Your task to perform on an android device: Go to wifi settings Image 0: 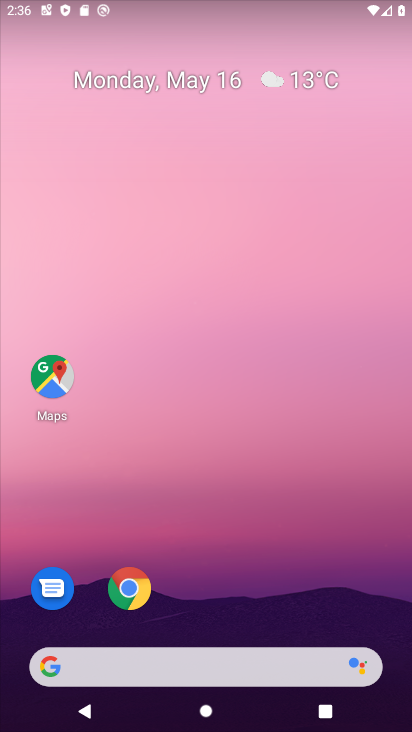
Step 0: drag from (195, 558) to (174, 10)
Your task to perform on an android device: Go to wifi settings Image 1: 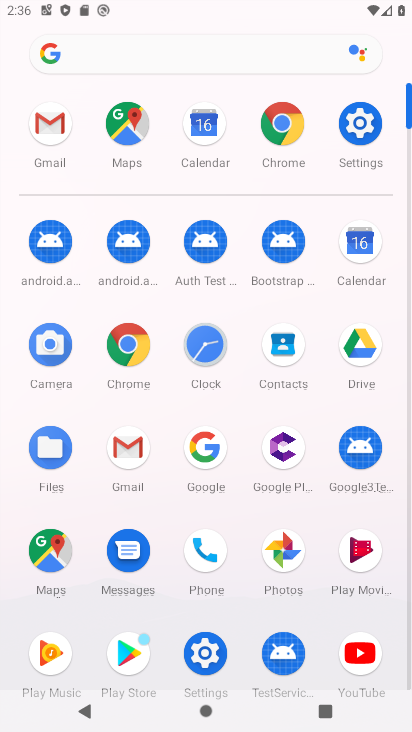
Step 1: click (367, 137)
Your task to perform on an android device: Go to wifi settings Image 2: 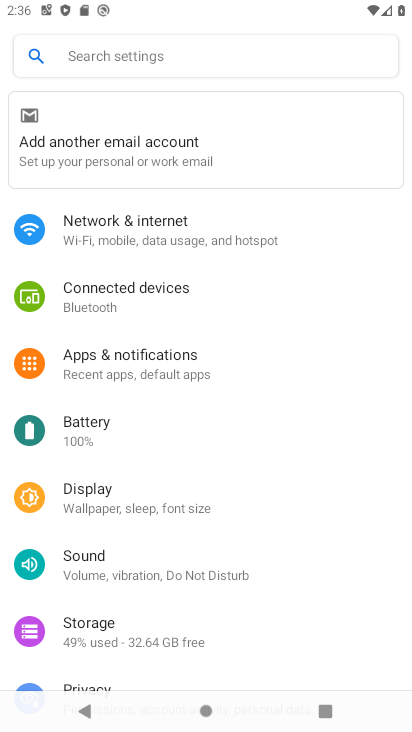
Step 2: click (121, 239)
Your task to perform on an android device: Go to wifi settings Image 3: 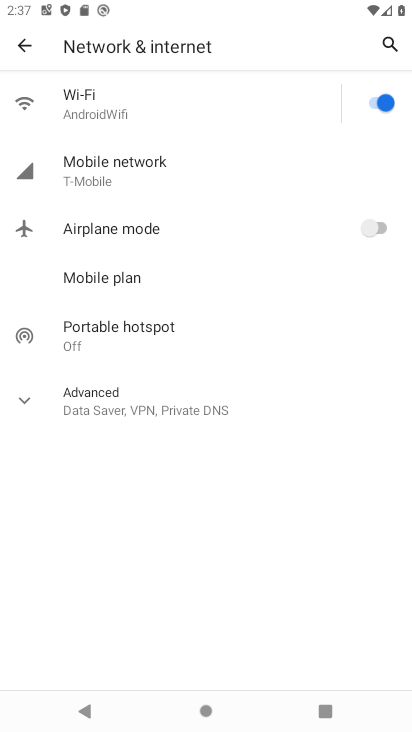
Step 3: click (123, 95)
Your task to perform on an android device: Go to wifi settings Image 4: 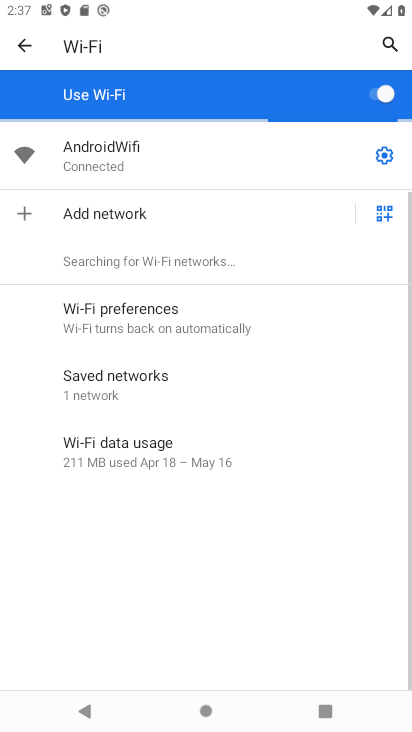
Step 4: task complete